Your task to perform on an android device: turn pop-ups on in chrome Image 0: 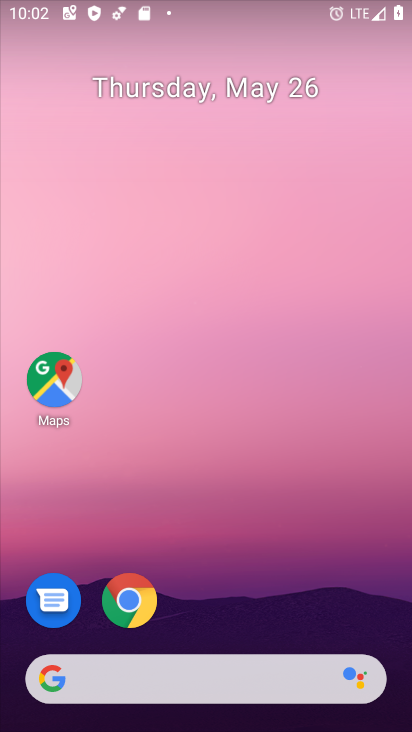
Step 0: click (130, 611)
Your task to perform on an android device: turn pop-ups on in chrome Image 1: 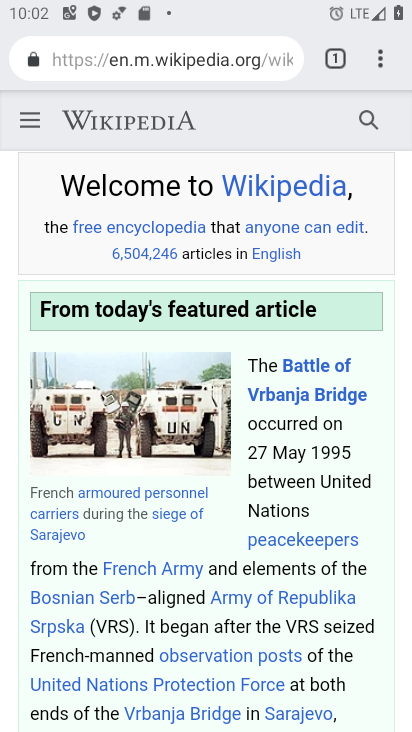
Step 1: drag from (386, 55) to (224, 633)
Your task to perform on an android device: turn pop-ups on in chrome Image 2: 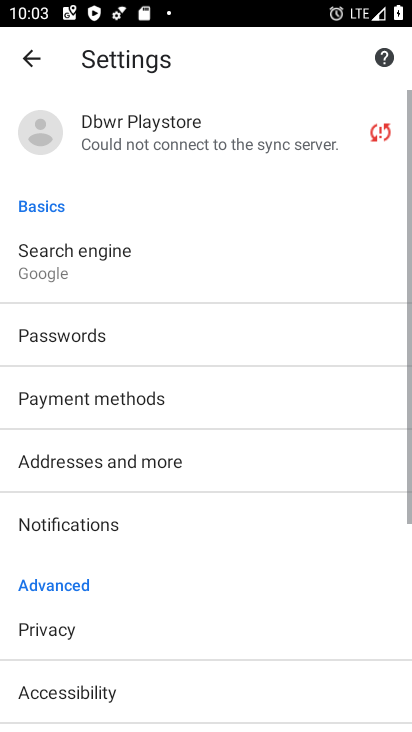
Step 2: drag from (224, 633) to (380, 170)
Your task to perform on an android device: turn pop-ups on in chrome Image 3: 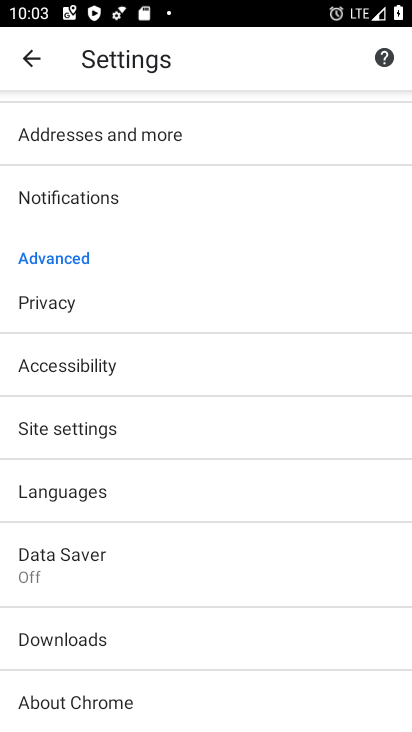
Step 3: click (134, 419)
Your task to perform on an android device: turn pop-ups on in chrome Image 4: 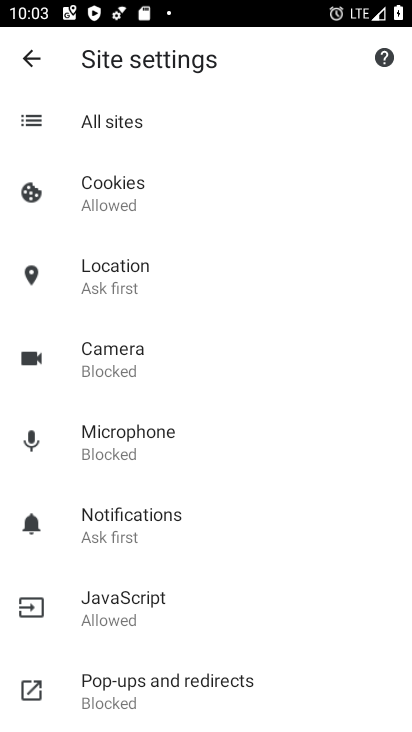
Step 4: click (163, 682)
Your task to perform on an android device: turn pop-ups on in chrome Image 5: 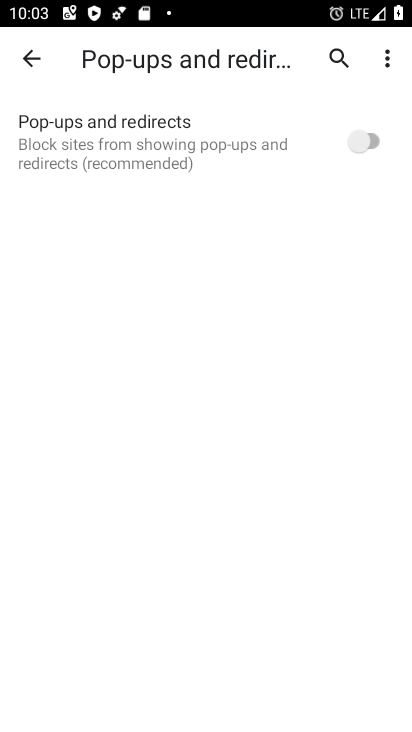
Step 5: click (360, 134)
Your task to perform on an android device: turn pop-ups on in chrome Image 6: 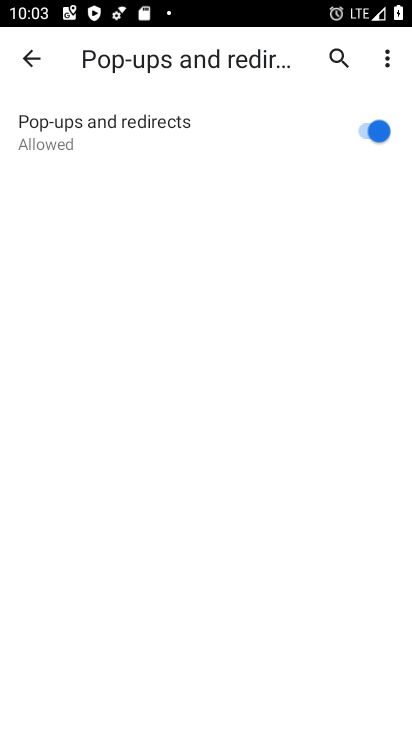
Step 6: task complete